Your task to perform on an android device: change the clock display to digital Image 0: 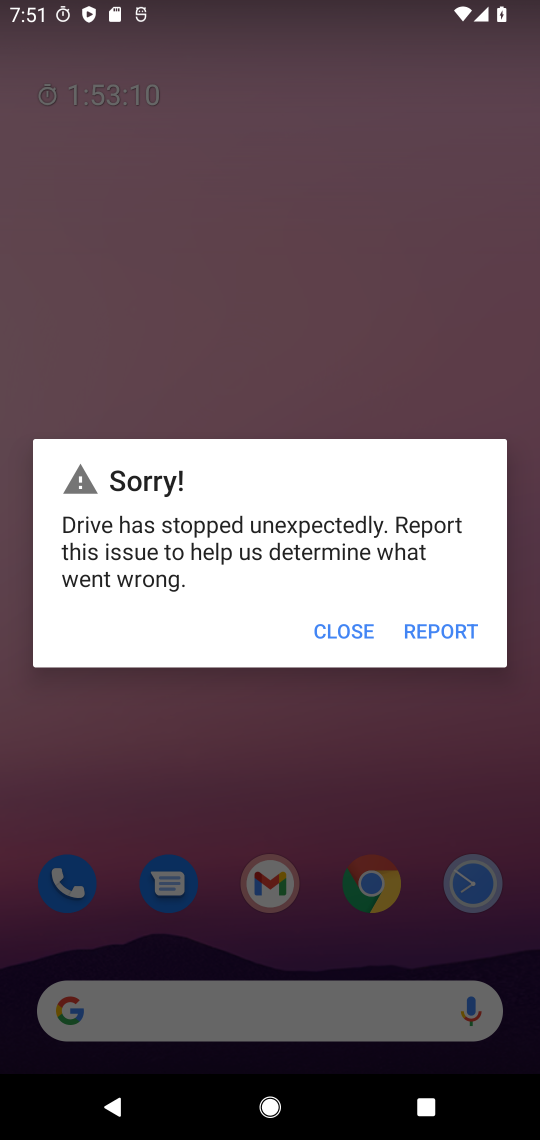
Step 0: click (337, 637)
Your task to perform on an android device: change the clock display to digital Image 1: 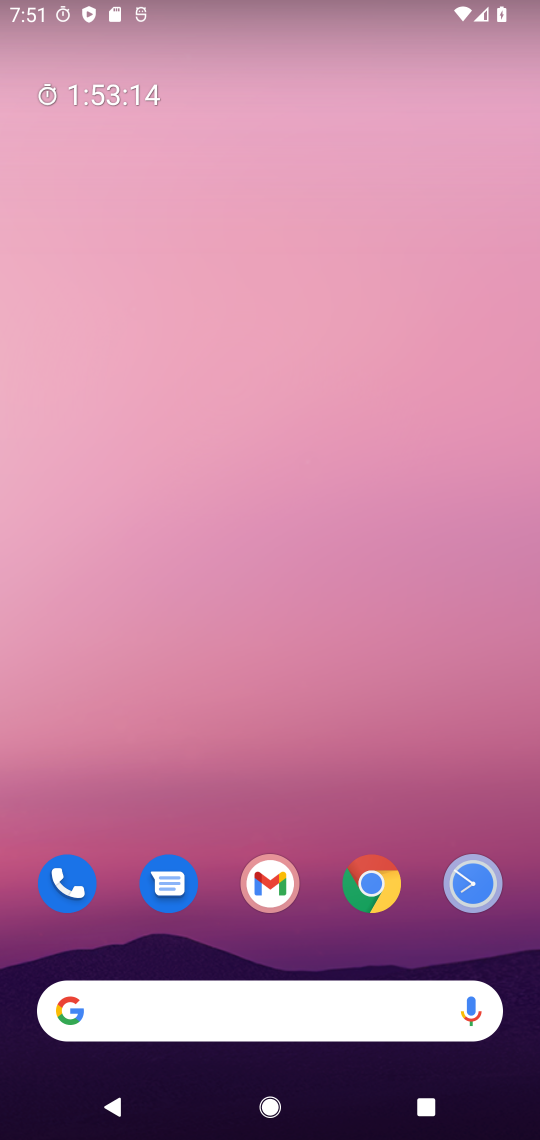
Step 1: click (458, 878)
Your task to perform on an android device: change the clock display to digital Image 2: 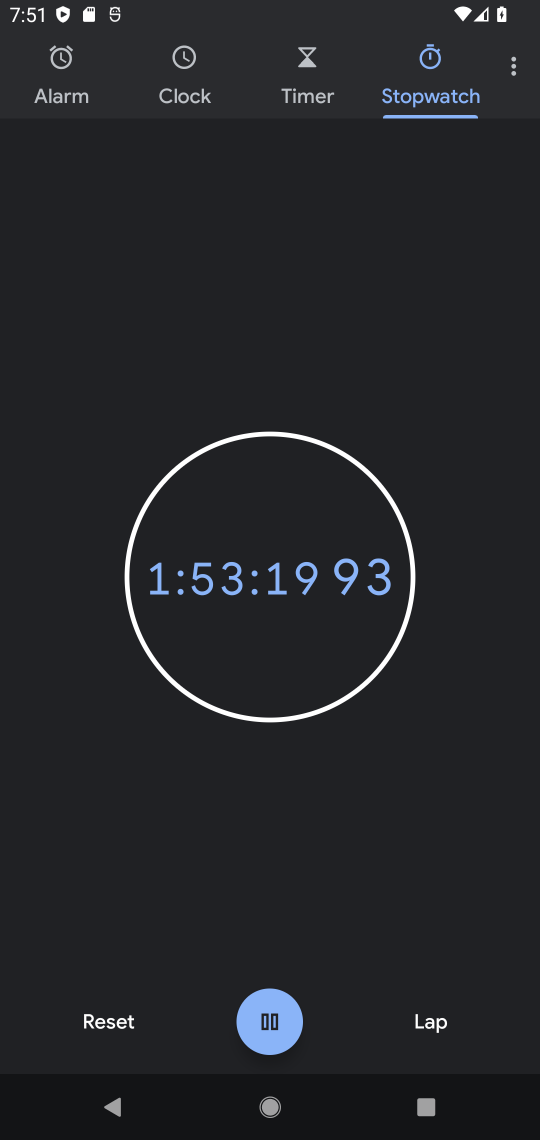
Step 2: click (503, 70)
Your task to perform on an android device: change the clock display to digital Image 3: 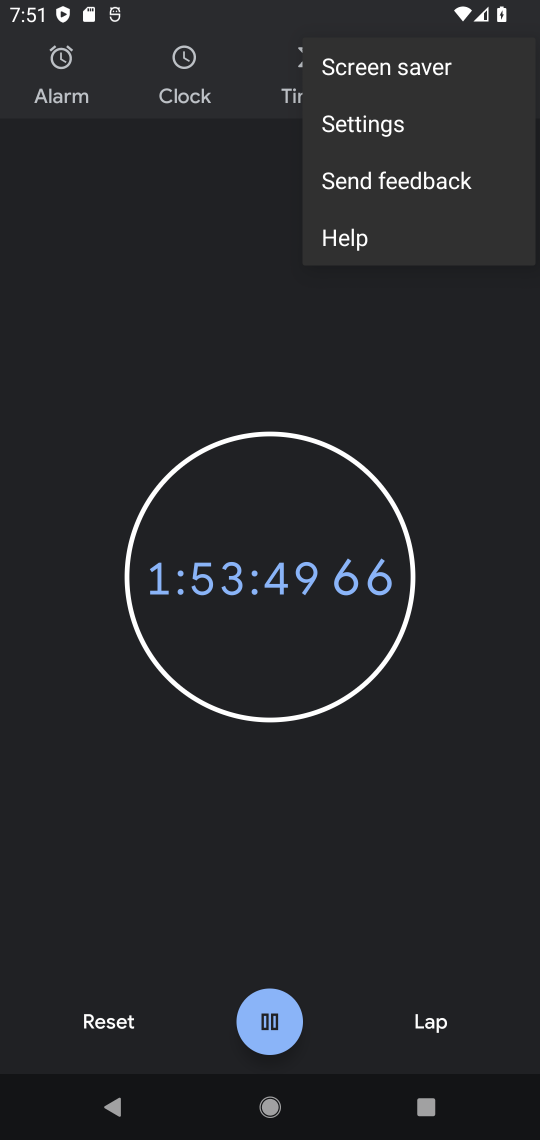
Step 3: click (401, 133)
Your task to perform on an android device: change the clock display to digital Image 4: 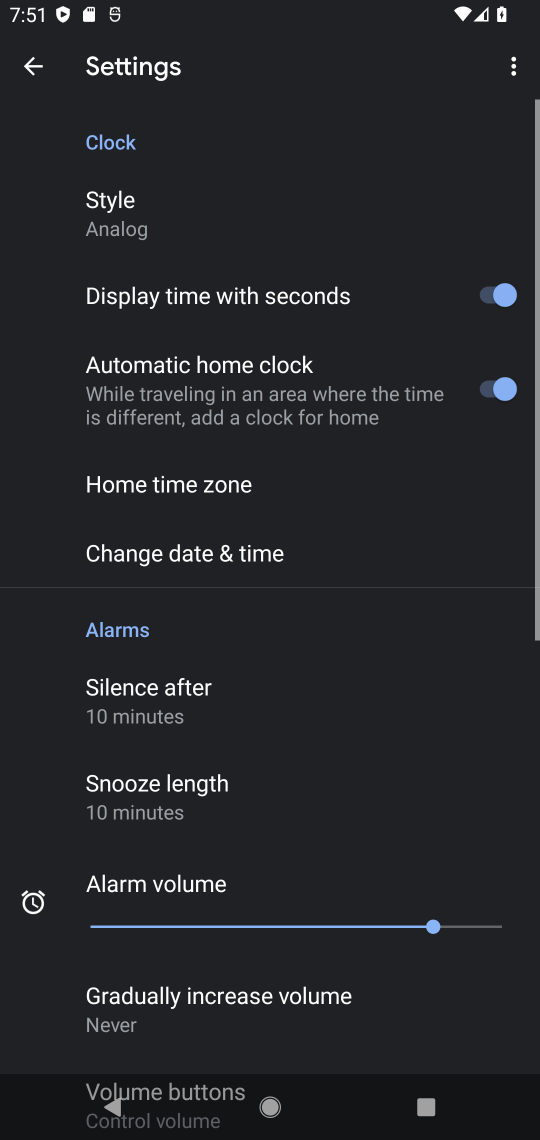
Step 4: click (215, 200)
Your task to perform on an android device: change the clock display to digital Image 5: 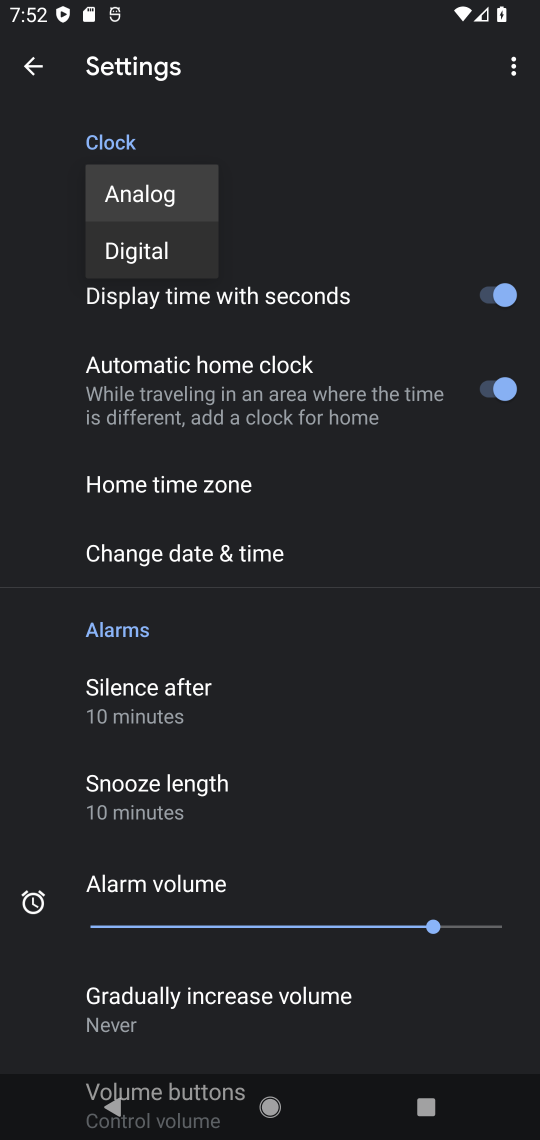
Step 5: click (178, 238)
Your task to perform on an android device: change the clock display to digital Image 6: 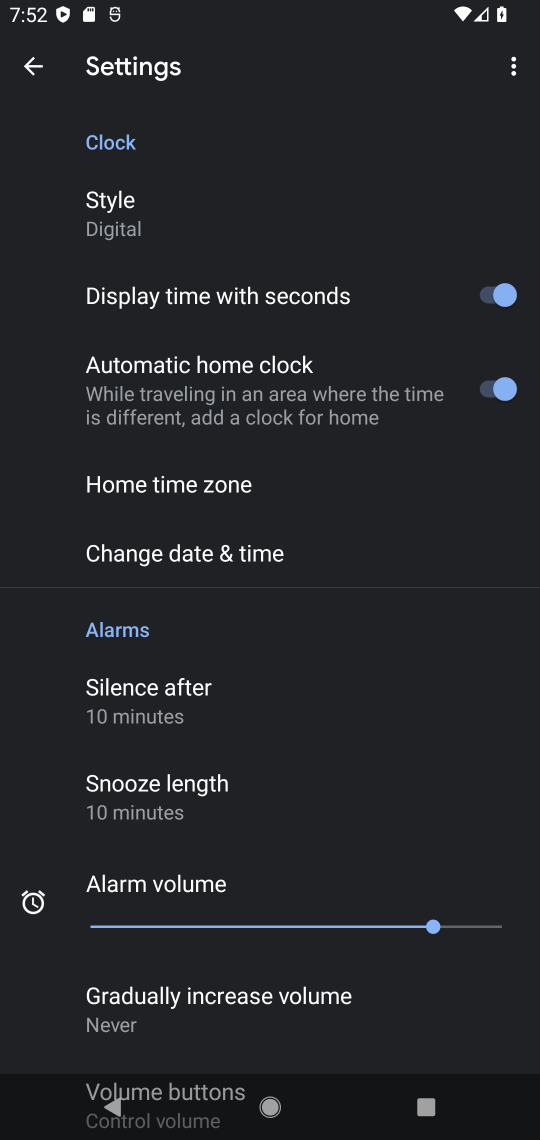
Step 6: task complete